Your task to perform on an android device: change the clock display to show seconds Image 0: 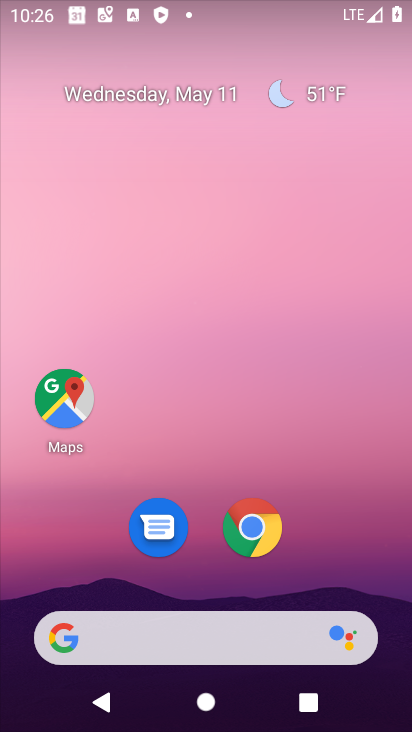
Step 0: drag from (351, 525) to (357, 40)
Your task to perform on an android device: change the clock display to show seconds Image 1: 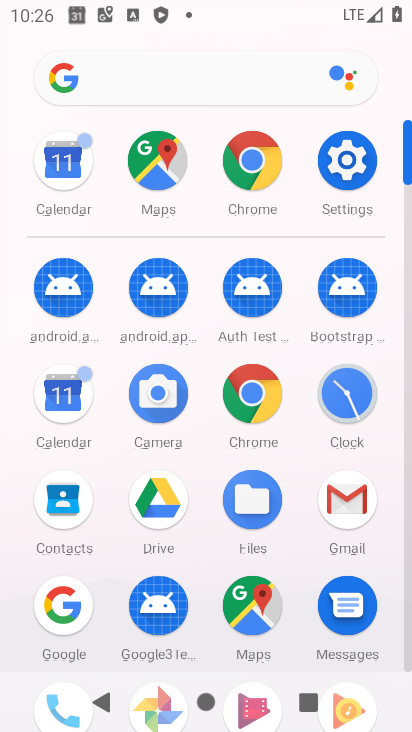
Step 1: click (367, 380)
Your task to perform on an android device: change the clock display to show seconds Image 2: 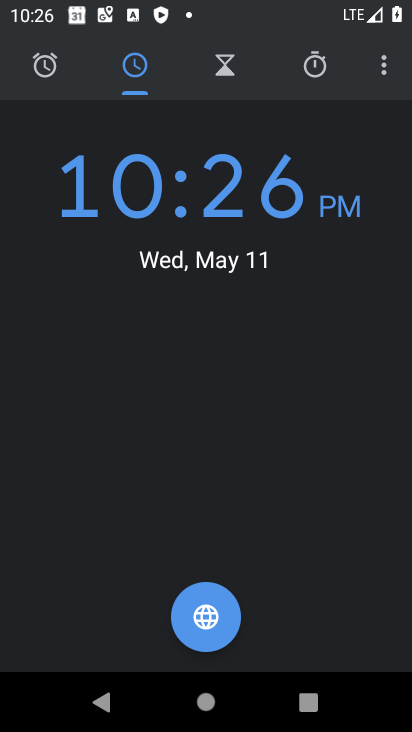
Step 2: click (386, 71)
Your task to perform on an android device: change the clock display to show seconds Image 3: 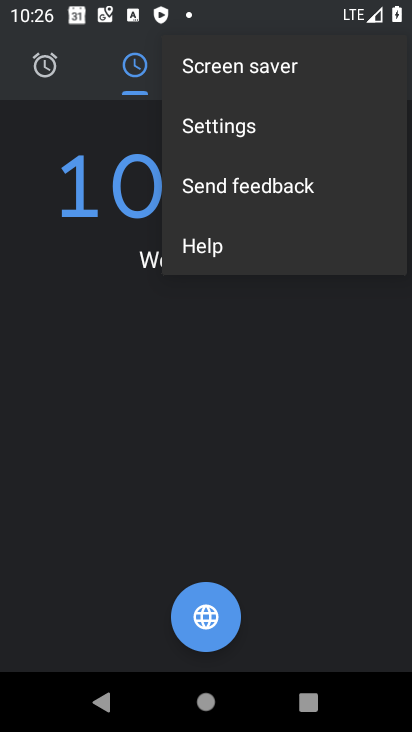
Step 3: click (188, 129)
Your task to perform on an android device: change the clock display to show seconds Image 4: 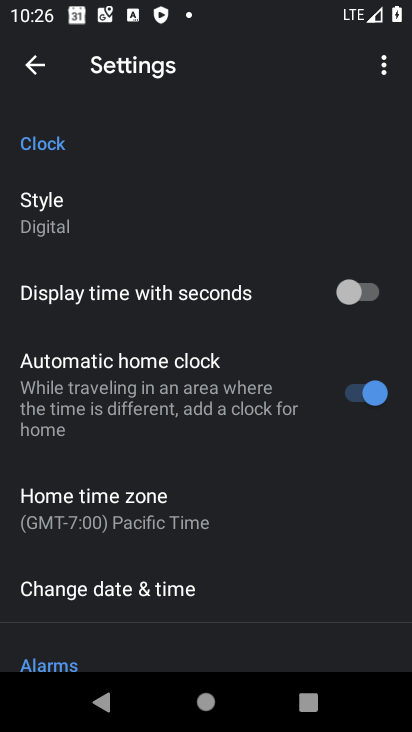
Step 4: click (362, 294)
Your task to perform on an android device: change the clock display to show seconds Image 5: 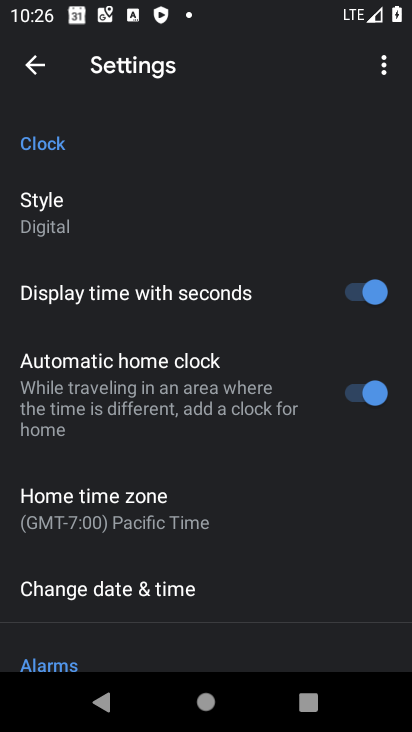
Step 5: task complete